Your task to perform on an android device: Open calendar and show me the first week of next month Image 0: 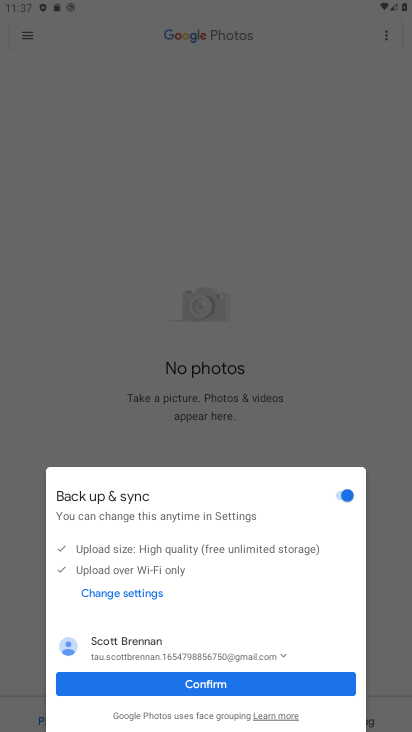
Step 0: task complete